Your task to perform on an android device: visit the assistant section in the google photos Image 0: 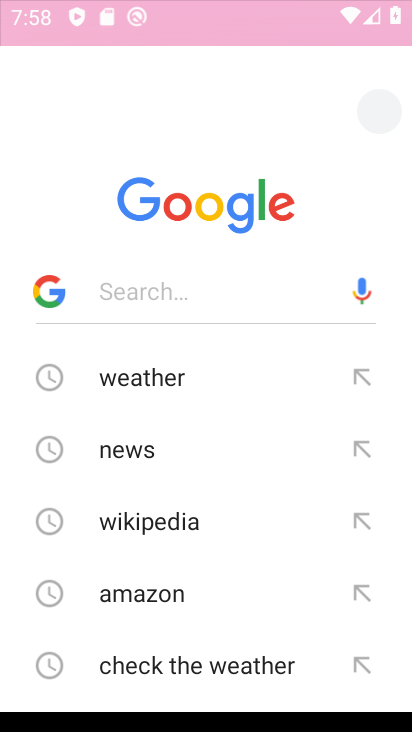
Step 0: click (243, 112)
Your task to perform on an android device: visit the assistant section in the google photos Image 1: 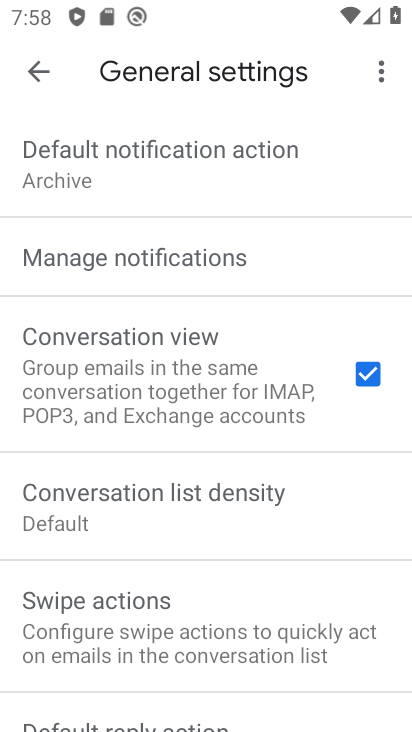
Step 1: press home button
Your task to perform on an android device: visit the assistant section in the google photos Image 2: 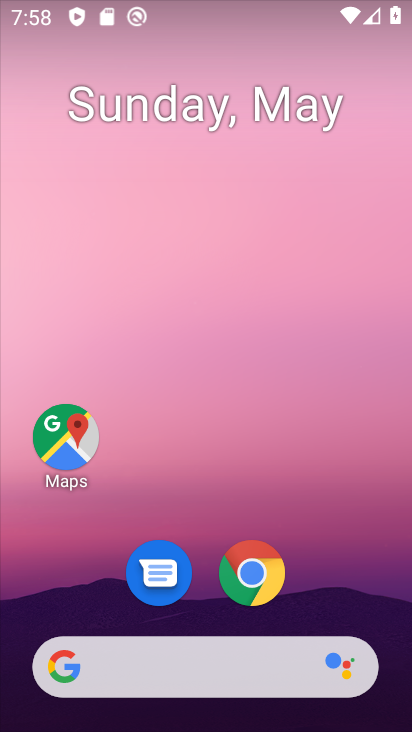
Step 2: drag from (359, 568) to (302, 132)
Your task to perform on an android device: visit the assistant section in the google photos Image 3: 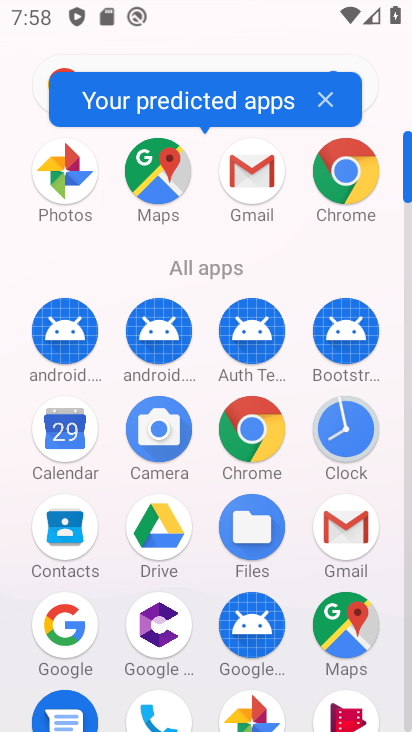
Step 3: click (74, 167)
Your task to perform on an android device: visit the assistant section in the google photos Image 4: 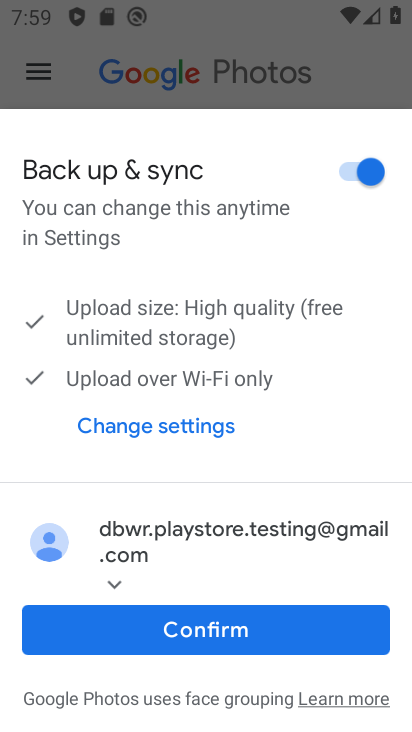
Step 4: click (174, 611)
Your task to perform on an android device: visit the assistant section in the google photos Image 5: 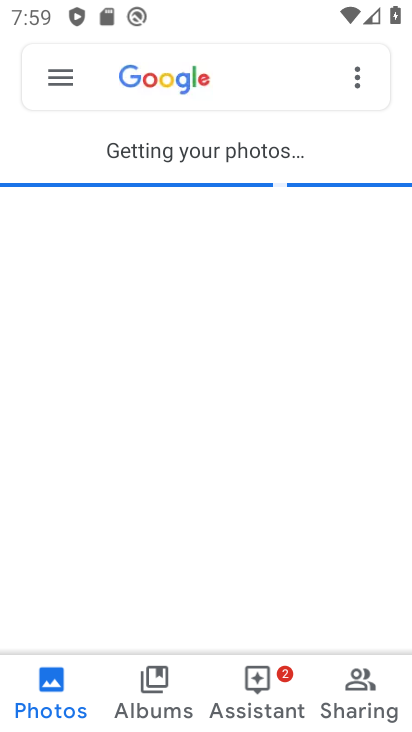
Step 5: click (263, 679)
Your task to perform on an android device: visit the assistant section in the google photos Image 6: 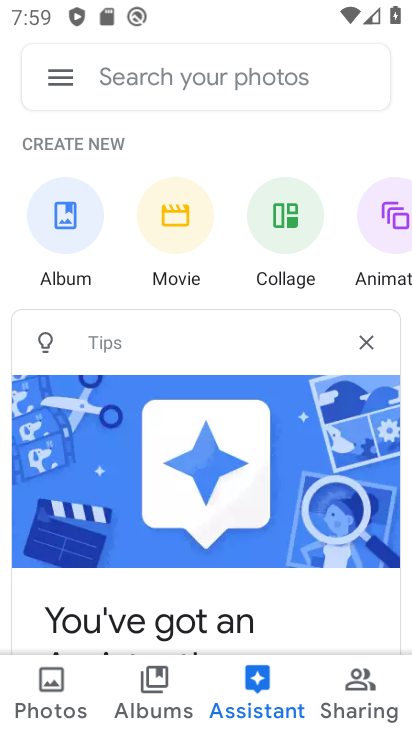
Step 6: task complete